Your task to perform on an android device: open app "Truecaller" (install if not already installed) and go to login screen Image 0: 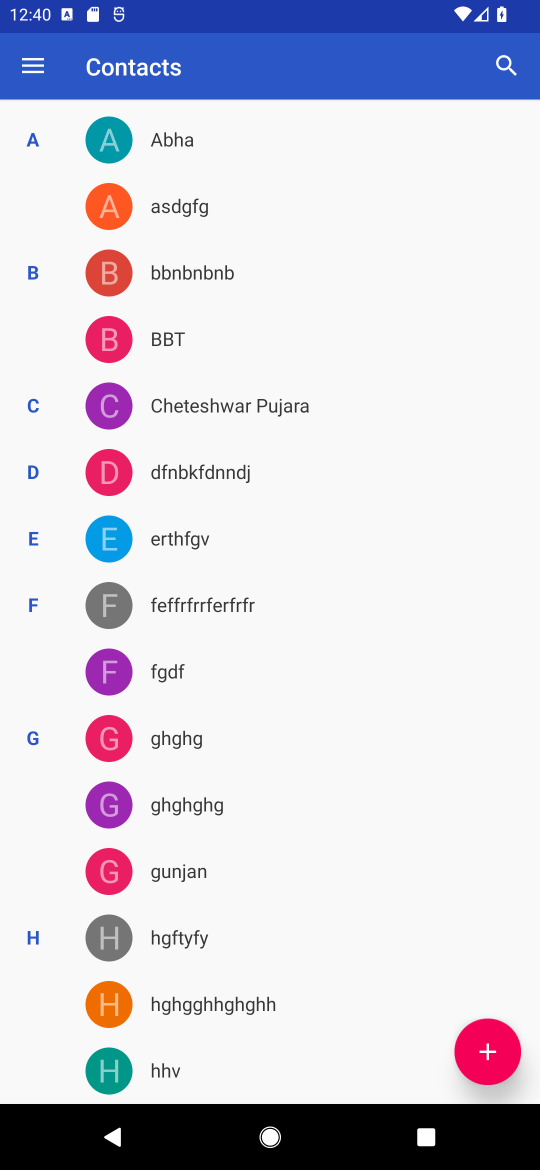
Step 0: press home button
Your task to perform on an android device: open app "Truecaller" (install if not already installed) and go to login screen Image 1: 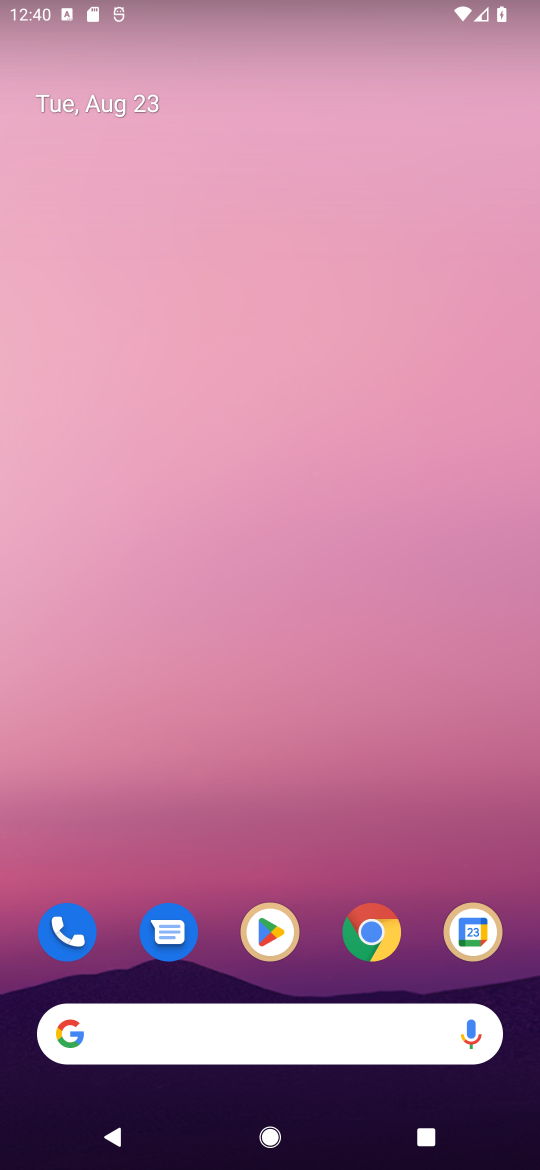
Step 1: click (285, 936)
Your task to perform on an android device: open app "Truecaller" (install if not already installed) and go to login screen Image 2: 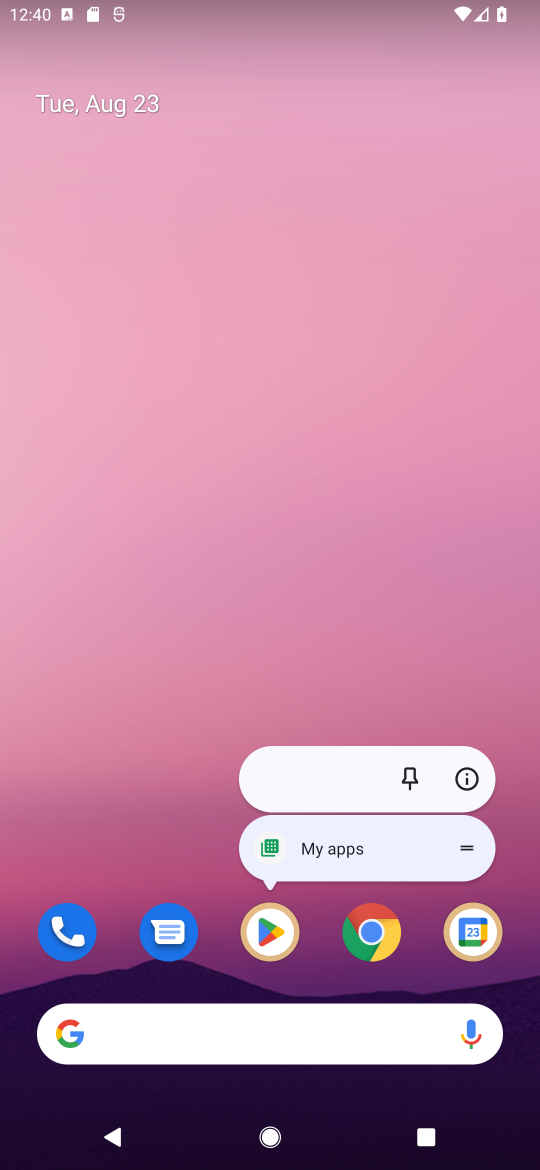
Step 2: click (267, 931)
Your task to perform on an android device: open app "Truecaller" (install if not already installed) and go to login screen Image 3: 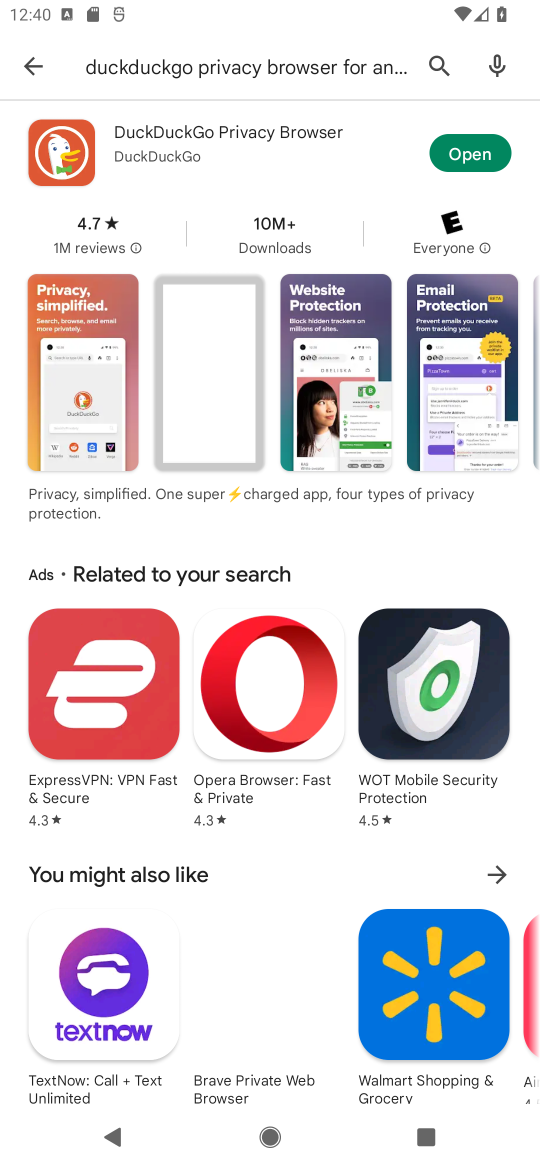
Step 3: click (441, 59)
Your task to perform on an android device: open app "Truecaller" (install if not already installed) and go to login screen Image 4: 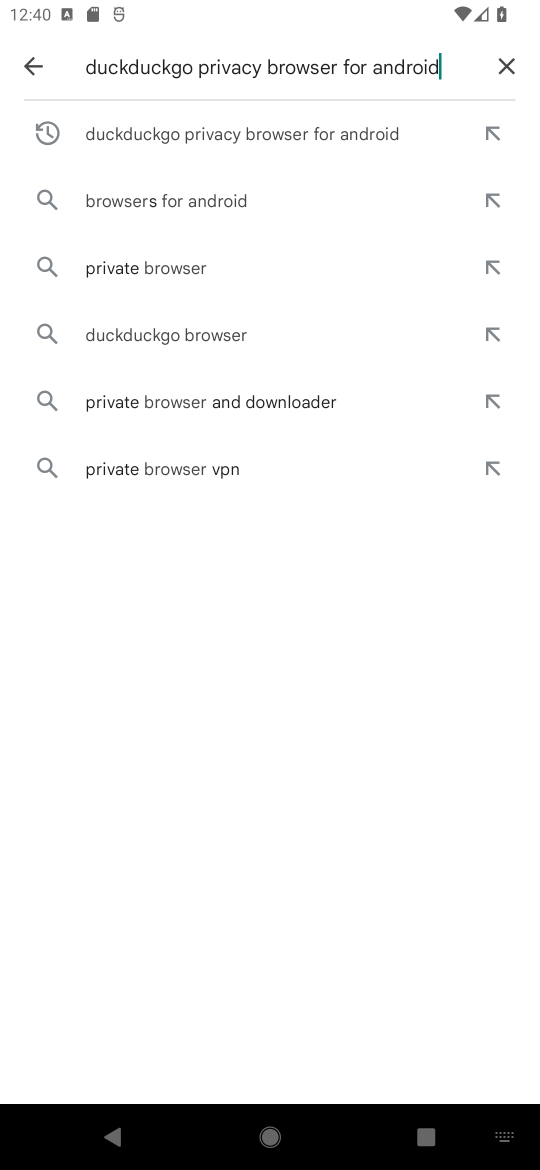
Step 4: click (503, 58)
Your task to perform on an android device: open app "Truecaller" (install if not already installed) and go to login screen Image 5: 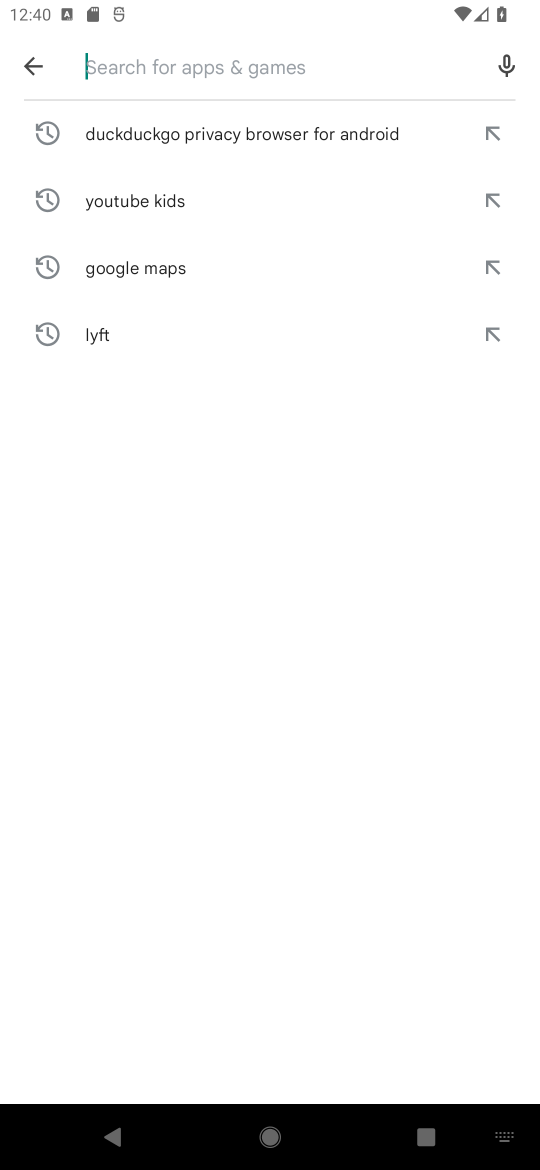
Step 5: click (152, 57)
Your task to perform on an android device: open app "Truecaller" (install if not already installed) and go to login screen Image 6: 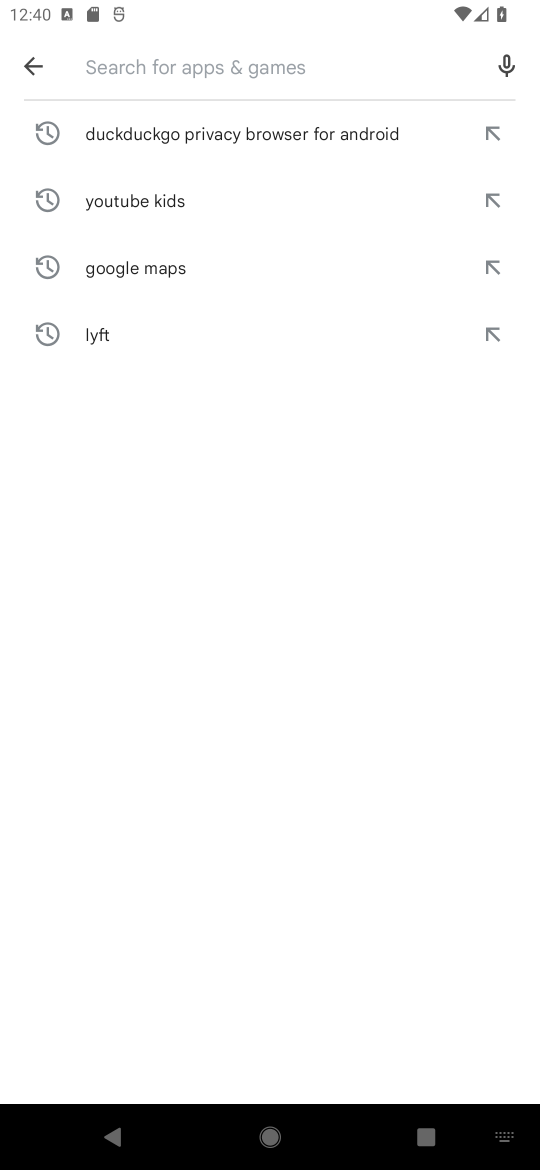
Step 6: click (164, 62)
Your task to perform on an android device: open app "Truecaller" (install if not already installed) and go to login screen Image 7: 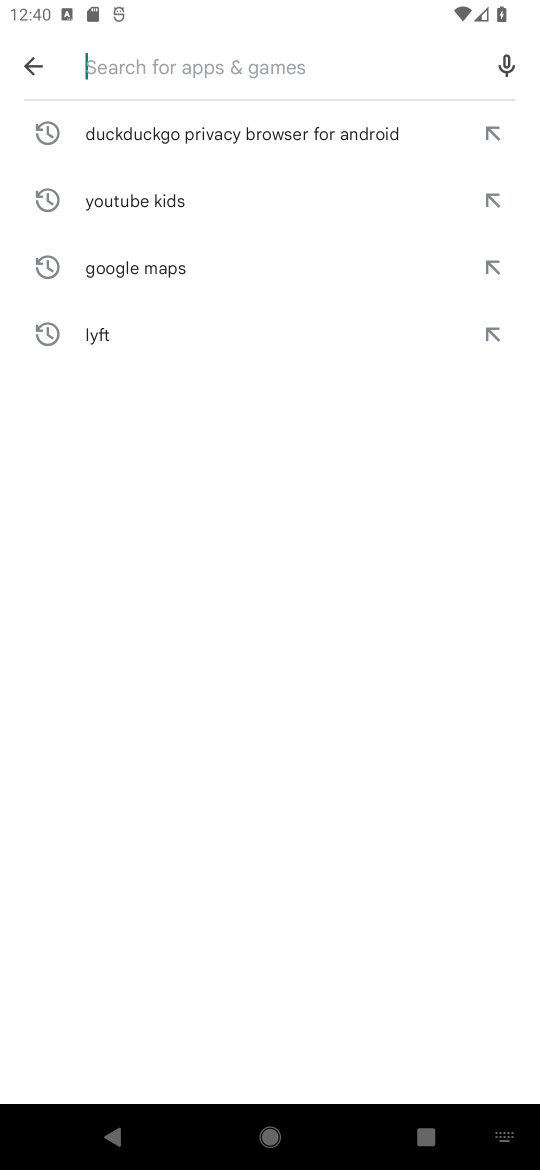
Step 7: type "Truecaller"
Your task to perform on an android device: open app "Truecaller" (install if not already installed) and go to login screen Image 8: 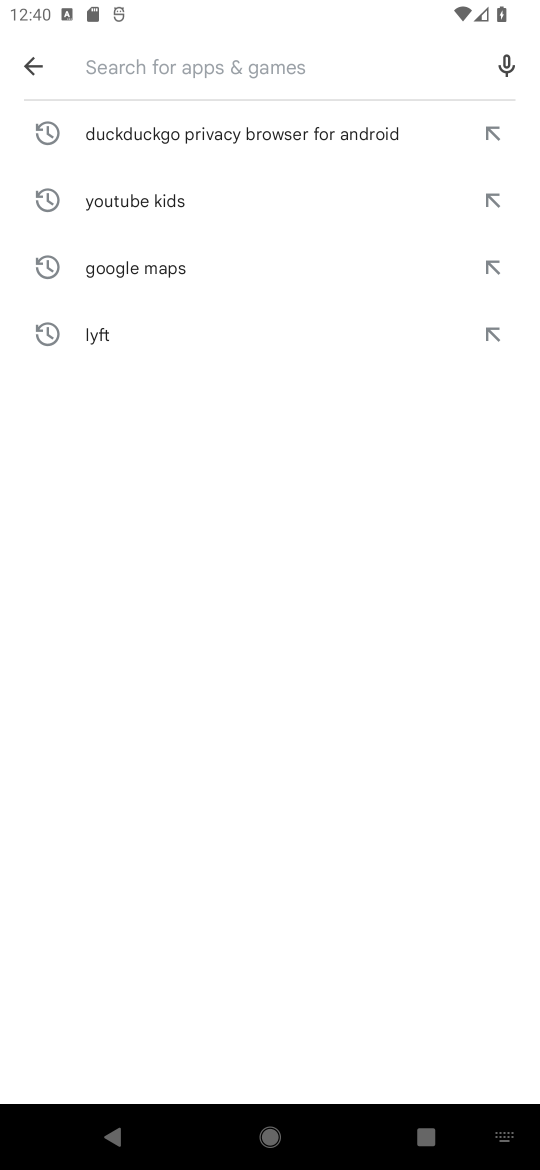
Step 8: click (232, 713)
Your task to perform on an android device: open app "Truecaller" (install if not already installed) and go to login screen Image 9: 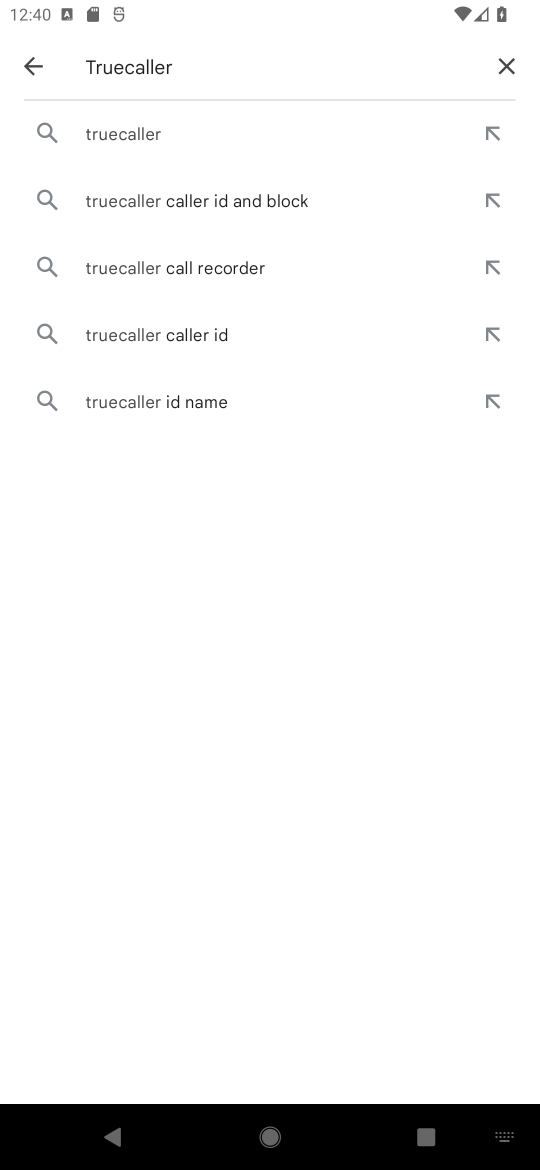
Step 9: click (140, 133)
Your task to perform on an android device: open app "Truecaller" (install if not already installed) and go to login screen Image 10: 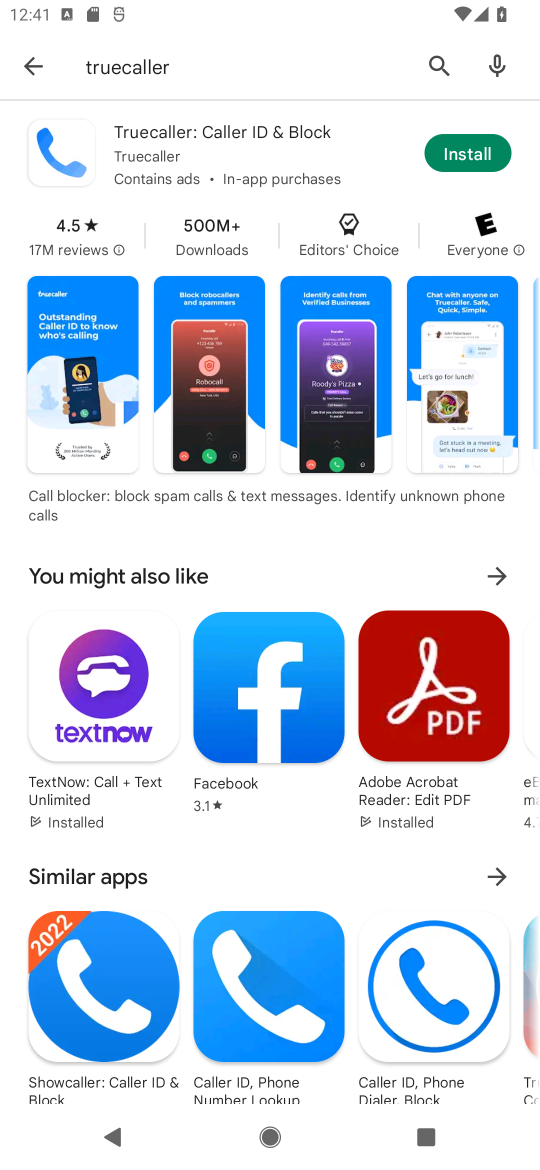
Step 10: click (487, 147)
Your task to perform on an android device: open app "Truecaller" (install if not already installed) and go to login screen Image 11: 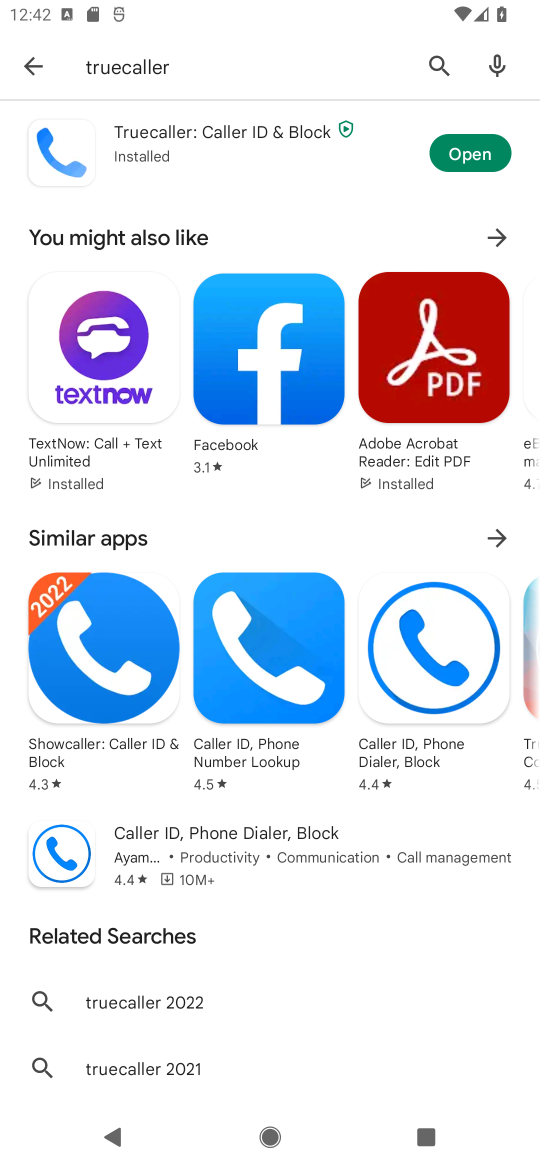
Step 11: click (462, 154)
Your task to perform on an android device: open app "Truecaller" (install if not already installed) and go to login screen Image 12: 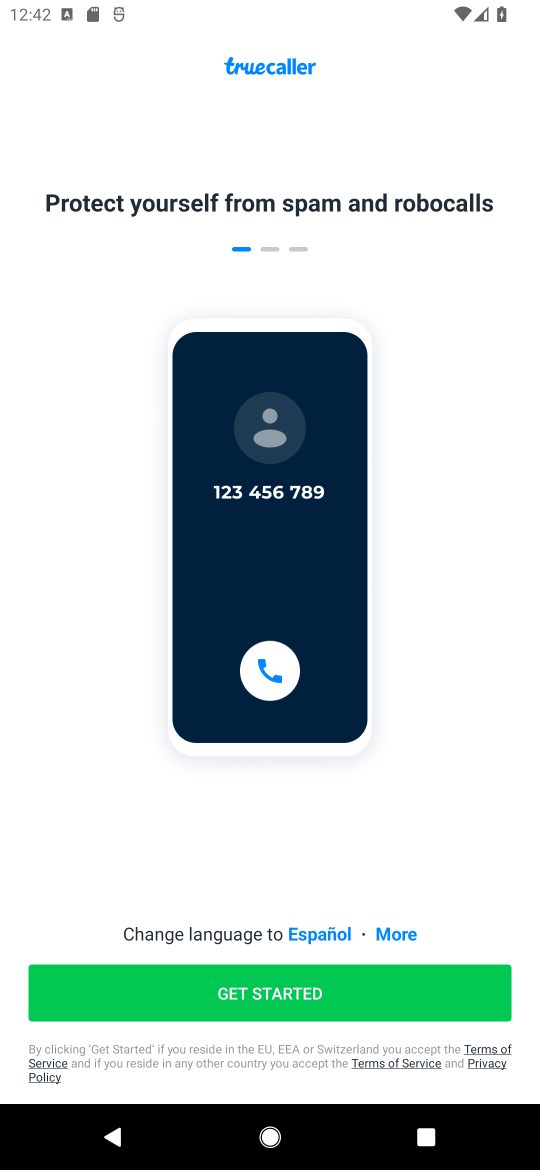
Step 12: click (201, 1008)
Your task to perform on an android device: open app "Truecaller" (install if not already installed) and go to login screen Image 13: 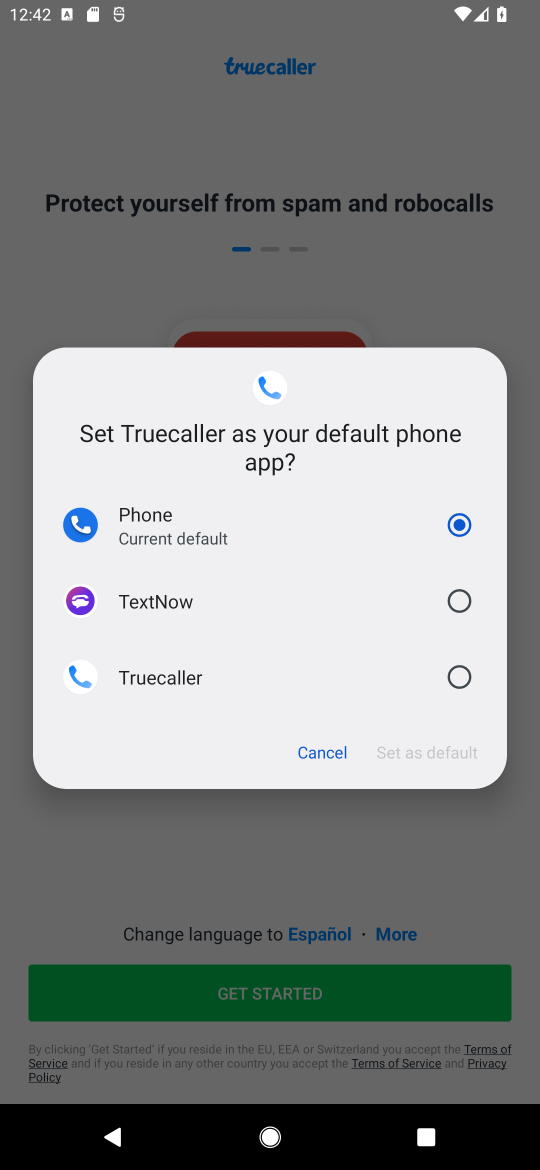
Step 13: click (436, 595)
Your task to perform on an android device: open app "Truecaller" (install if not already installed) and go to login screen Image 14: 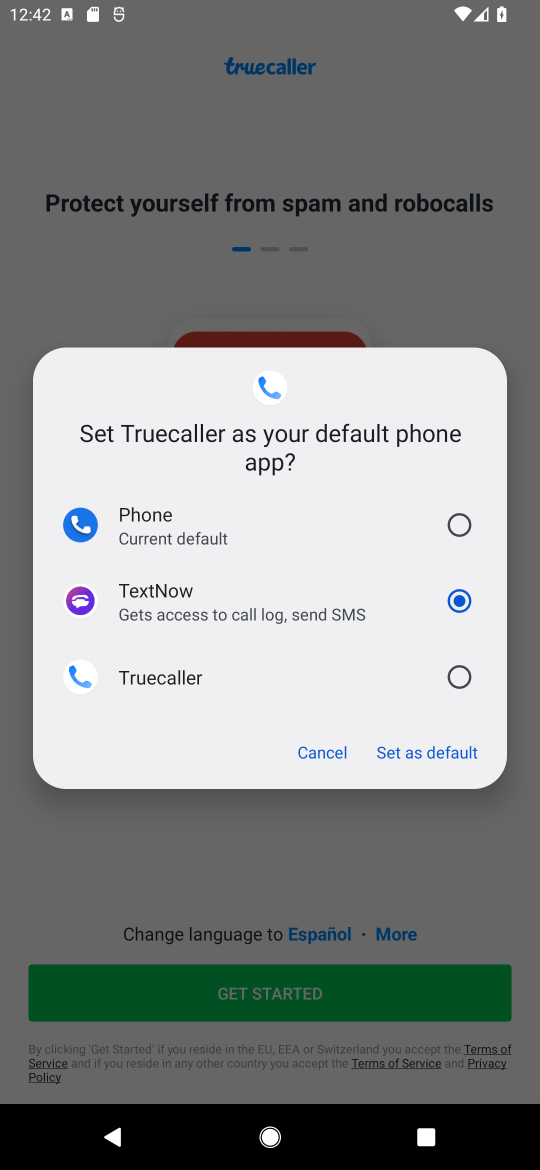
Step 14: click (452, 672)
Your task to perform on an android device: open app "Truecaller" (install if not already installed) and go to login screen Image 15: 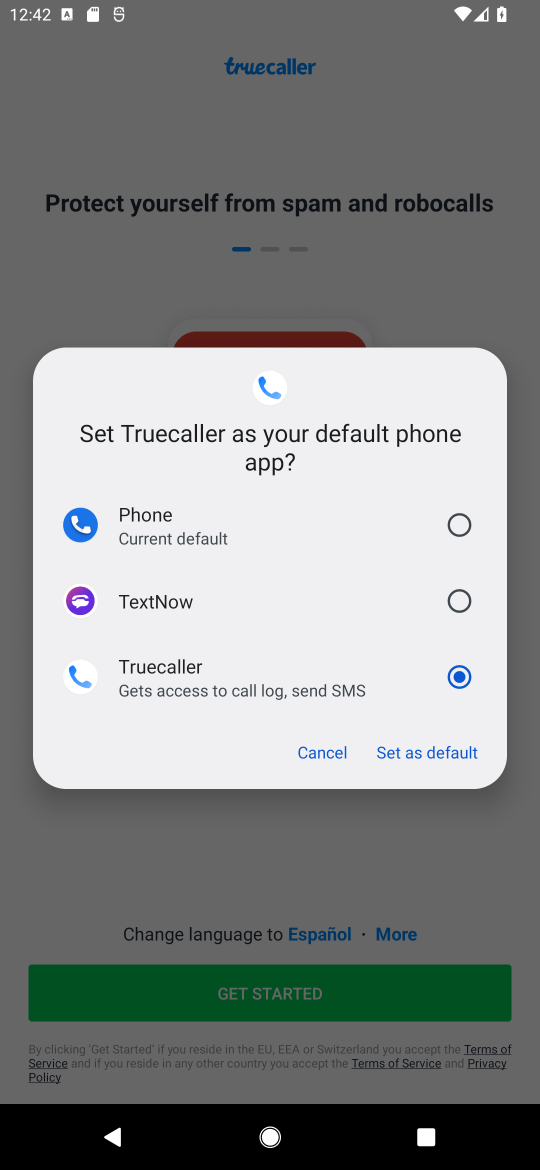
Step 15: click (423, 753)
Your task to perform on an android device: open app "Truecaller" (install if not already installed) and go to login screen Image 16: 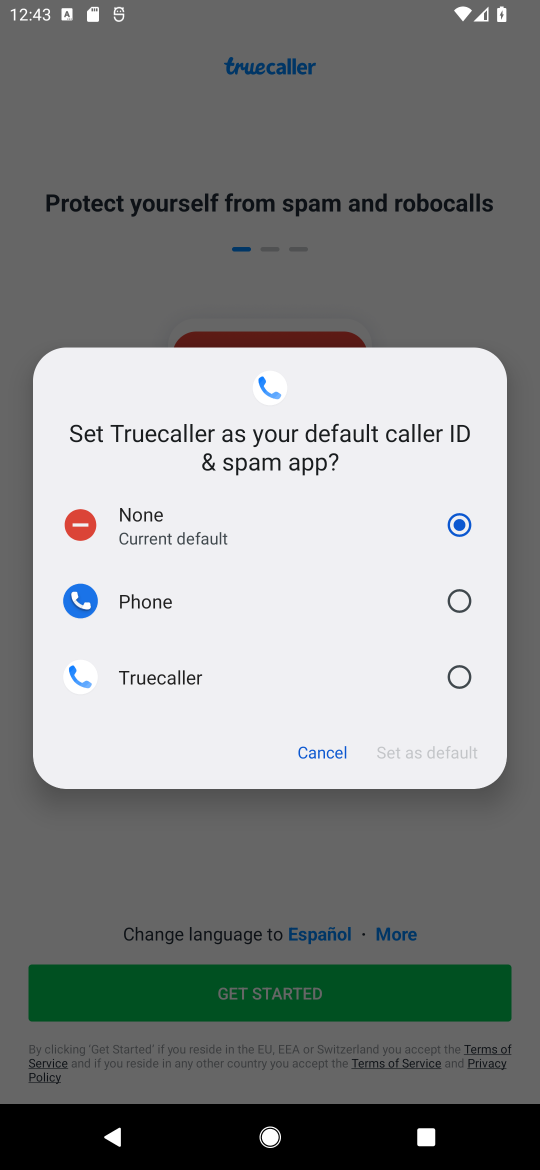
Step 16: click (313, 748)
Your task to perform on an android device: open app "Truecaller" (install if not already installed) and go to login screen Image 17: 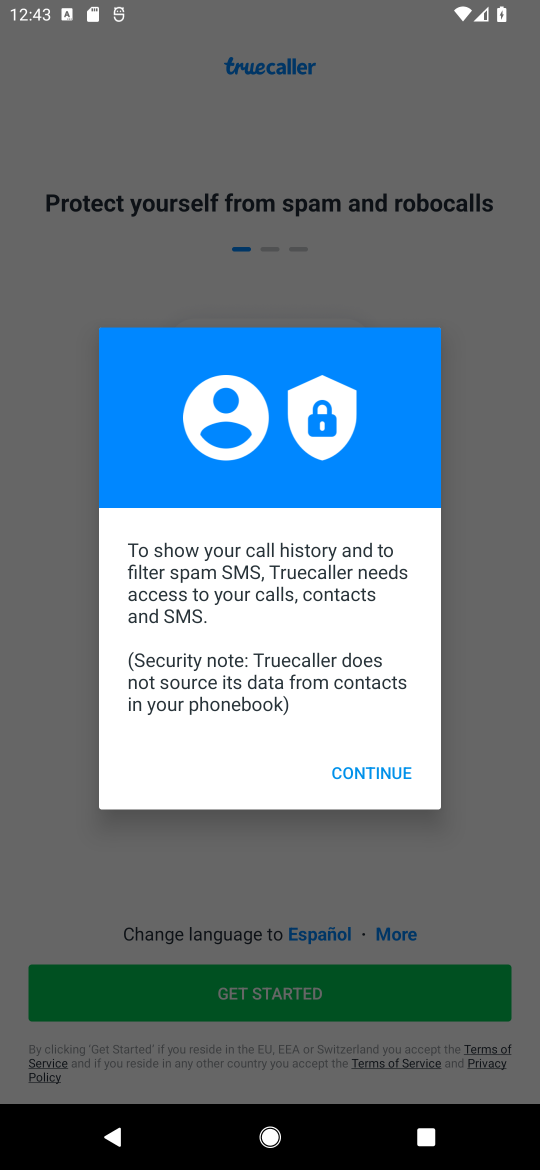
Step 17: click (376, 772)
Your task to perform on an android device: open app "Truecaller" (install if not already installed) and go to login screen Image 18: 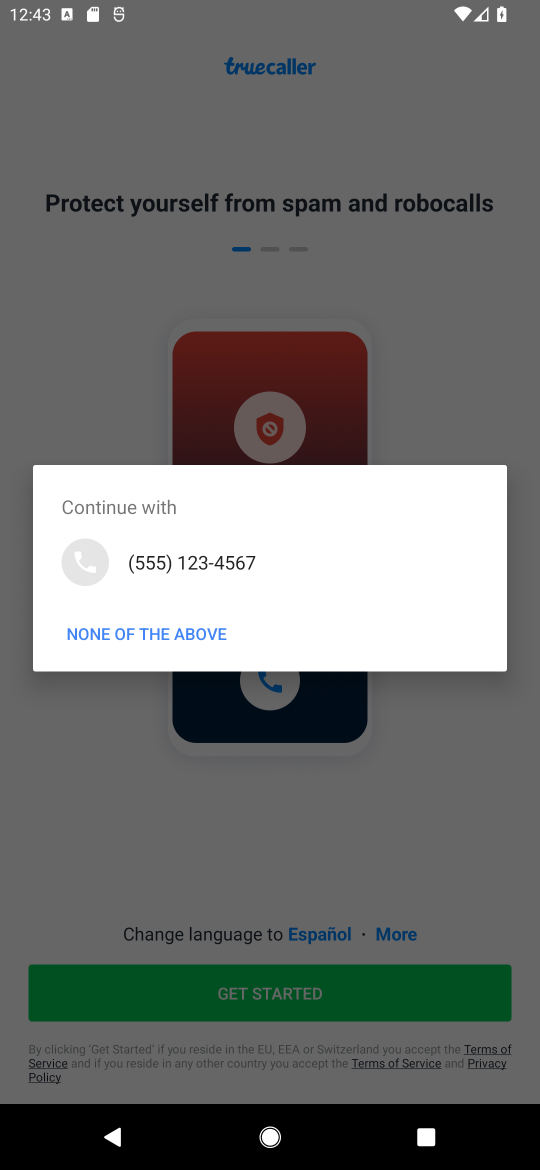
Step 18: task complete